Your task to perform on an android device: make emails show in primary in the gmail app Image 0: 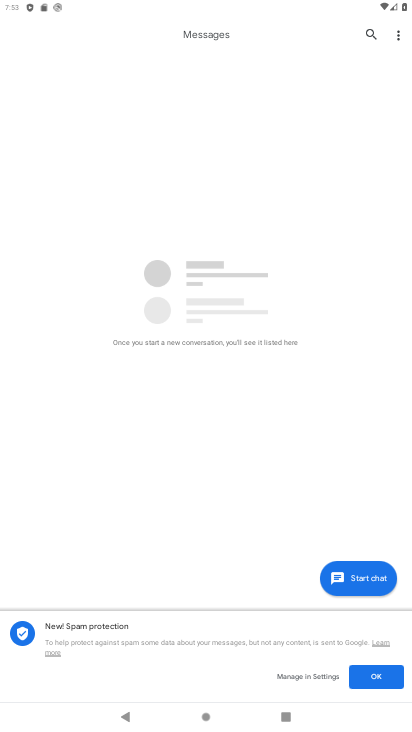
Step 0: press home button
Your task to perform on an android device: make emails show in primary in the gmail app Image 1: 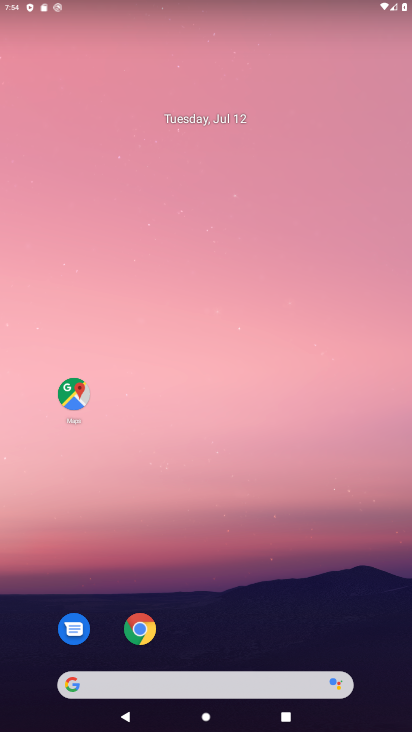
Step 1: drag from (237, 708) to (241, 33)
Your task to perform on an android device: make emails show in primary in the gmail app Image 2: 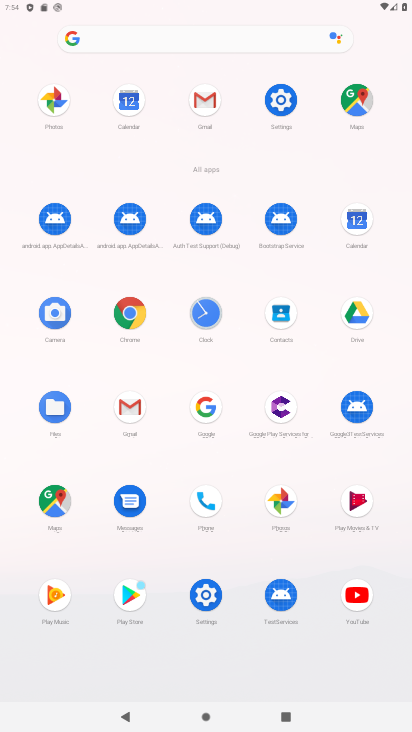
Step 2: click (211, 101)
Your task to perform on an android device: make emails show in primary in the gmail app Image 3: 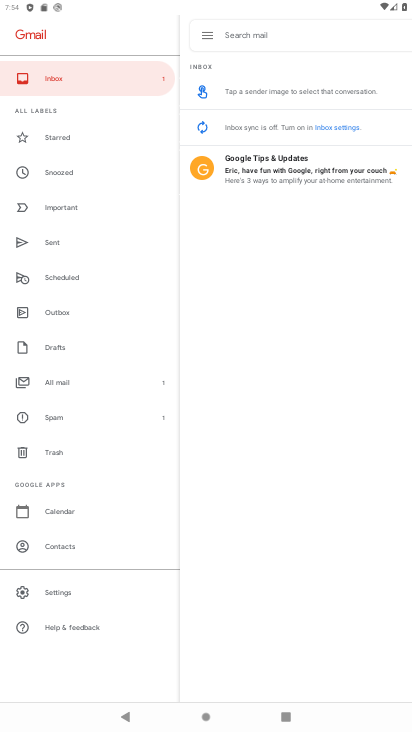
Step 3: click (54, 589)
Your task to perform on an android device: make emails show in primary in the gmail app Image 4: 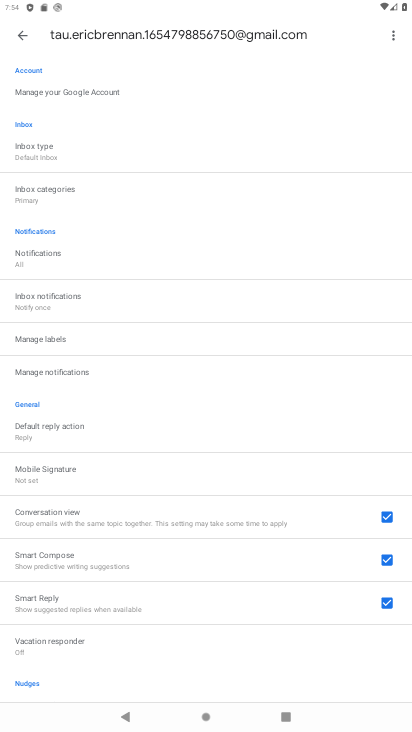
Step 4: click (42, 149)
Your task to perform on an android device: make emails show in primary in the gmail app Image 5: 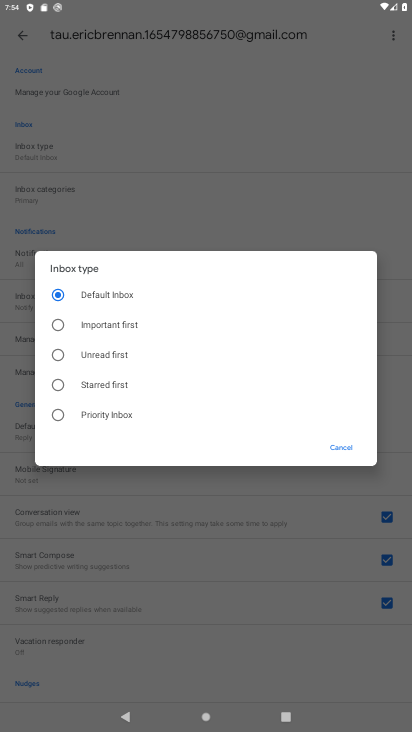
Step 5: click (340, 443)
Your task to perform on an android device: make emails show in primary in the gmail app Image 6: 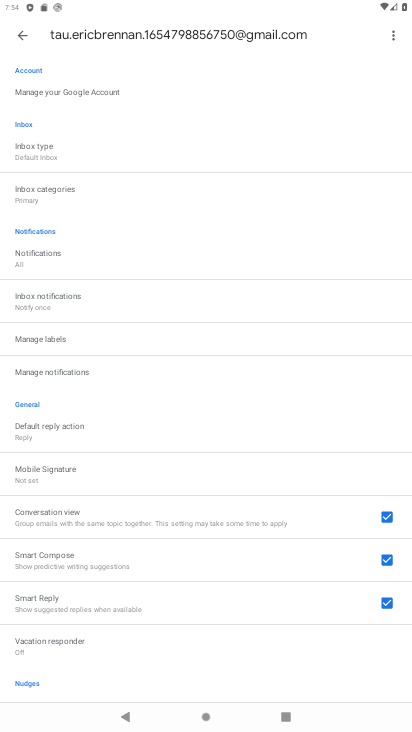
Step 6: click (43, 199)
Your task to perform on an android device: make emails show in primary in the gmail app Image 7: 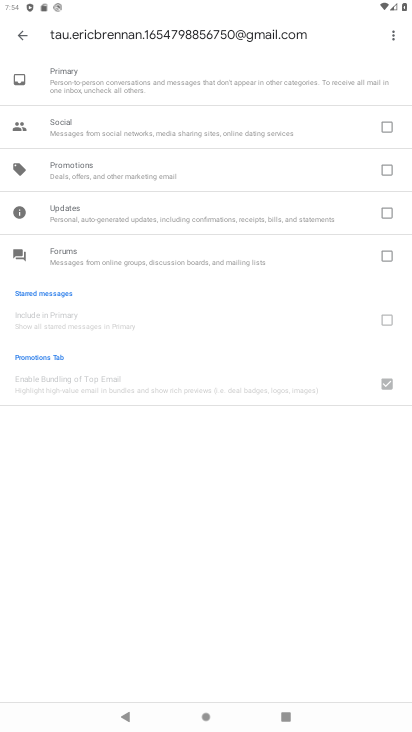
Step 7: task complete